Your task to perform on an android device: add a contact in the contacts app Image 0: 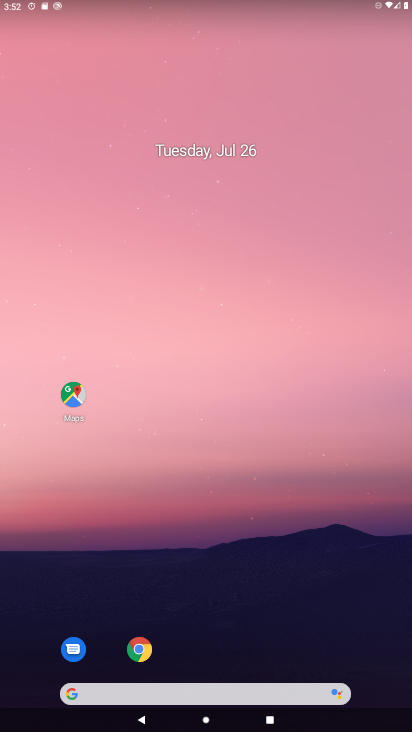
Step 0: drag from (311, 592) to (154, 56)
Your task to perform on an android device: add a contact in the contacts app Image 1: 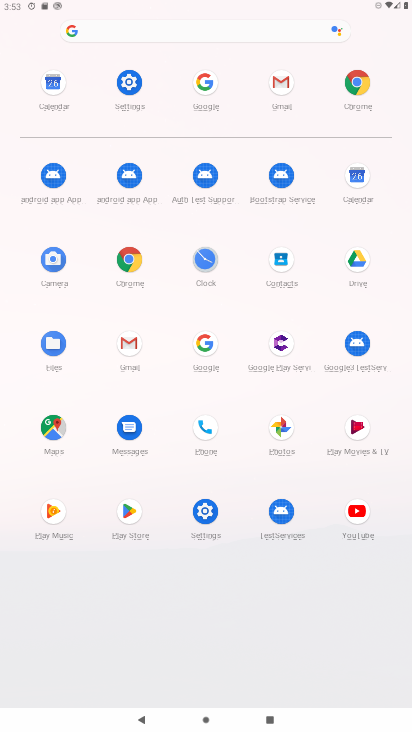
Step 1: click (282, 253)
Your task to perform on an android device: add a contact in the contacts app Image 2: 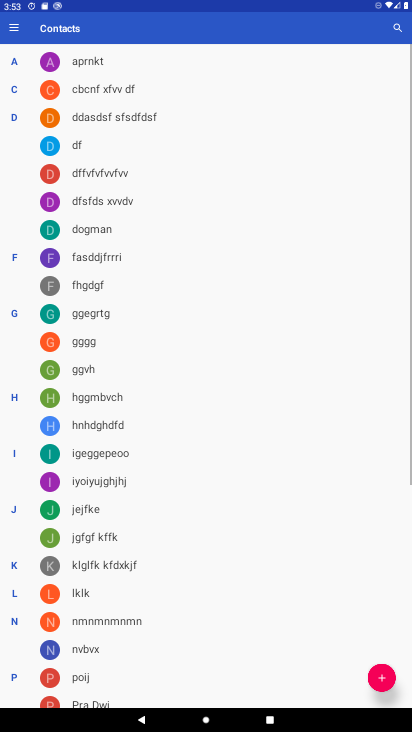
Step 2: click (376, 682)
Your task to perform on an android device: add a contact in the contacts app Image 3: 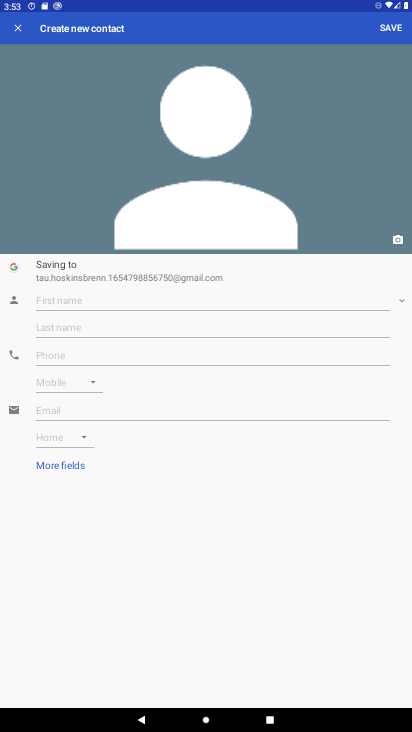
Step 3: click (69, 302)
Your task to perform on an android device: add a contact in the contacts app Image 4: 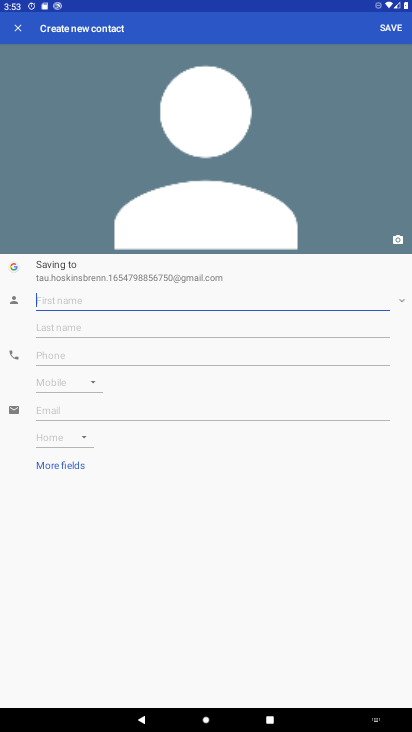
Step 4: type "karthik"
Your task to perform on an android device: add a contact in the contacts app Image 5: 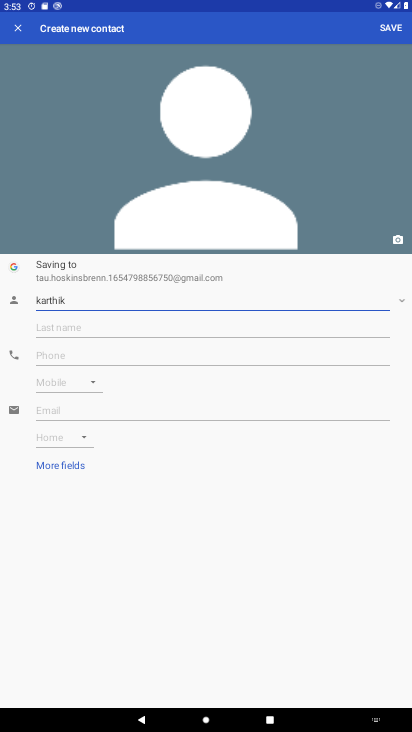
Step 5: click (392, 28)
Your task to perform on an android device: add a contact in the contacts app Image 6: 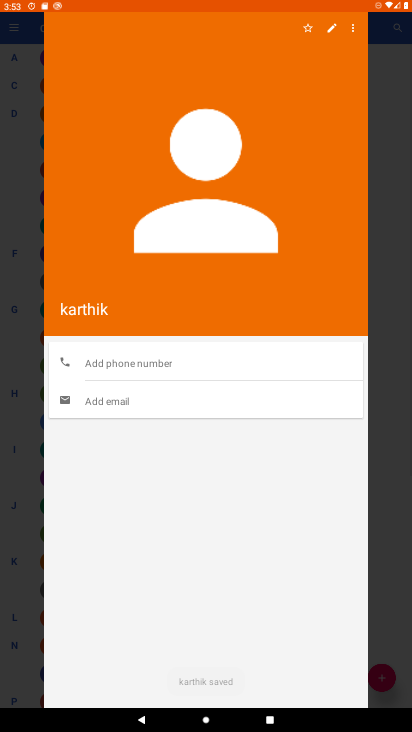
Step 6: task complete